Your task to perform on an android device: Open Google Chrome Image 0: 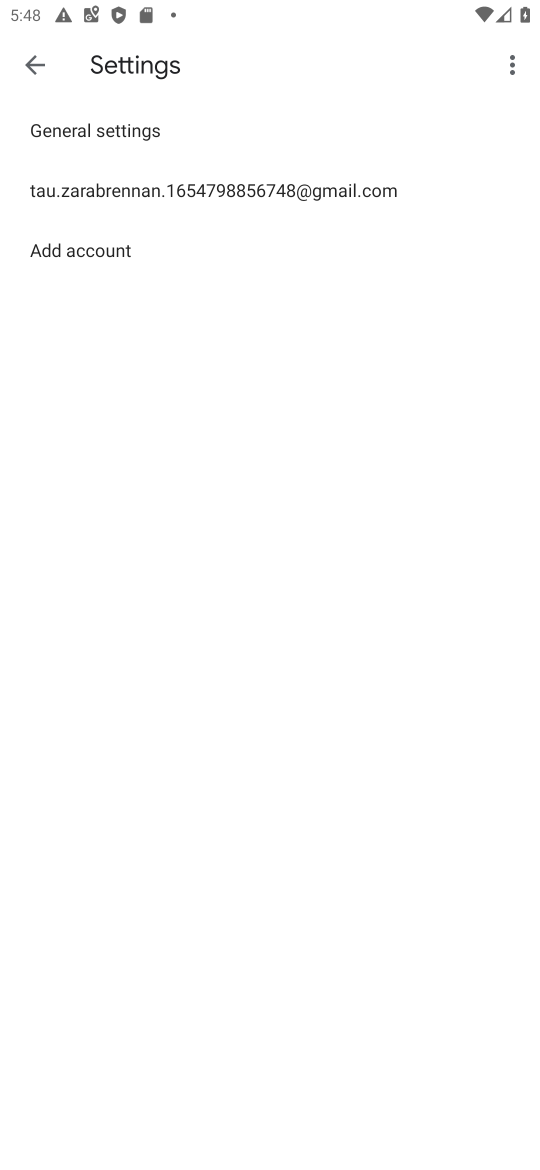
Step 0: press home button
Your task to perform on an android device: Open Google Chrome Image 1: 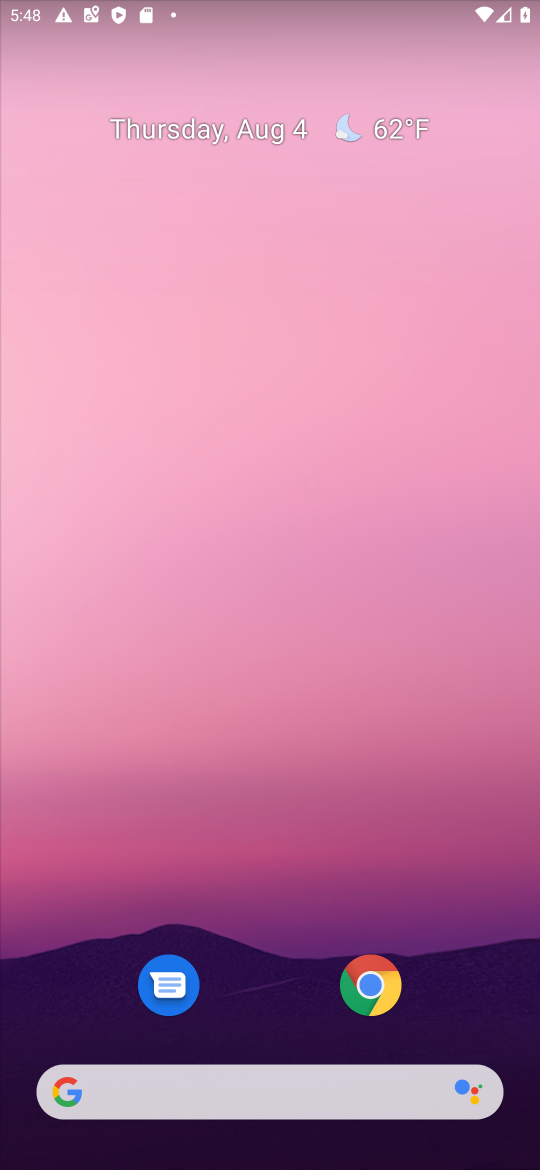
Step 1: click (383, 981)
Your task to perform on an android device: Open Google Chrome Image 2: 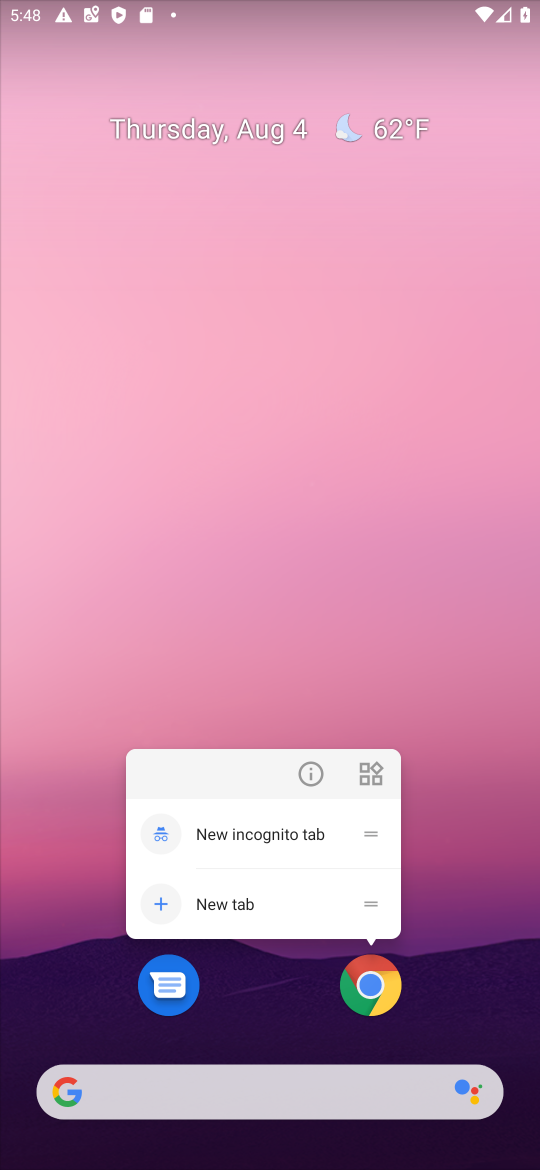
Step 2: click (383, 995)
Your task to perform on an android device: Open Google Chrome Image 3: 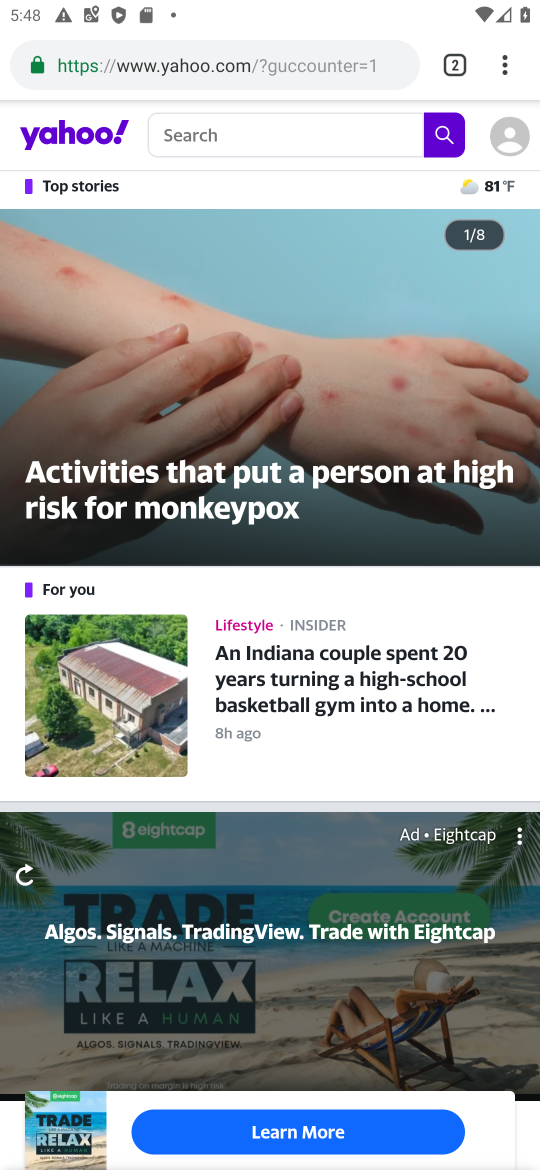
Step 3: task complete